Your task to perform on an android device: install app "PlayWell" Image 0: 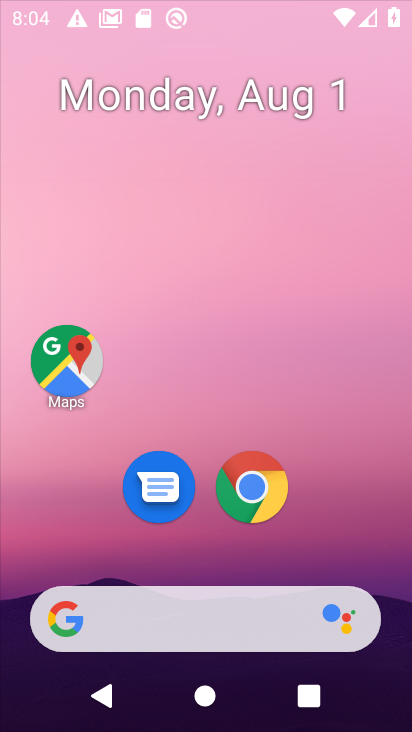
Step 0: press home button
Your task to perform on an android device: install app "PlayWell" Image 1: 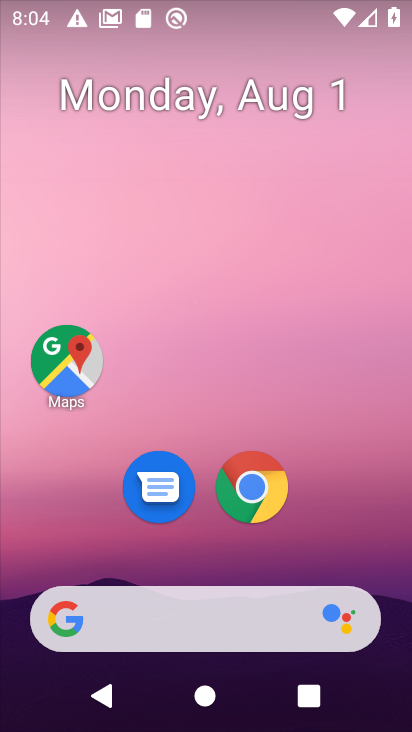
Step 1: drag from (369, 559) to (379, 52)
Your task to perform on an android device: install app "PlayWell" Image 2: 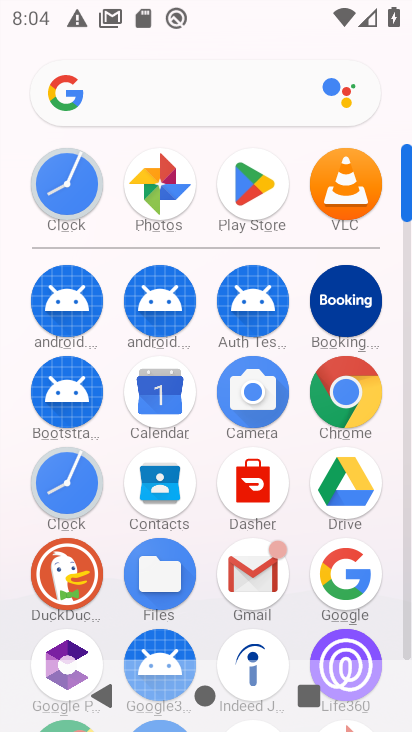
Step 2: click (252, 193)
Your task to perform on an android device: install app "PlayWell" Image 3: 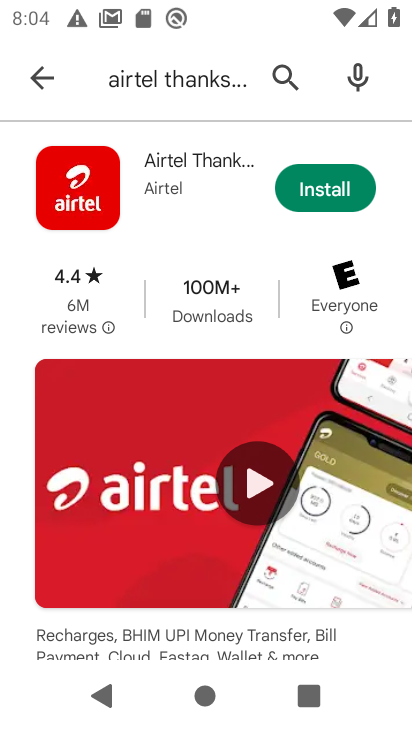
Step 3: click (281, 70)
Your task to perform on an android device: install app "PlayWell" Image 4: 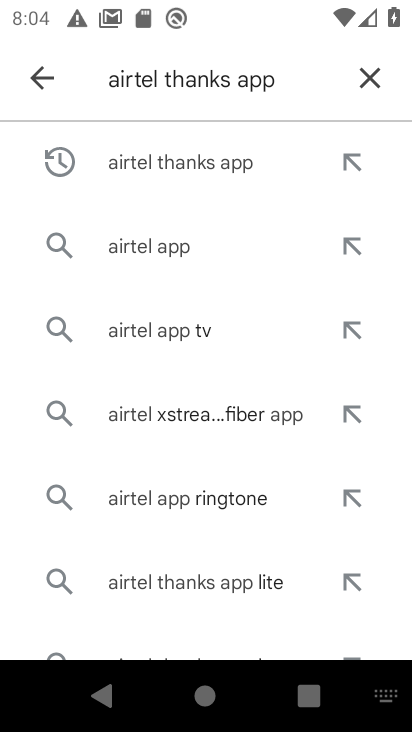
Step 4: click (368, 68)
Your task to perform on an android device: install app "PlayWell" Image 5: 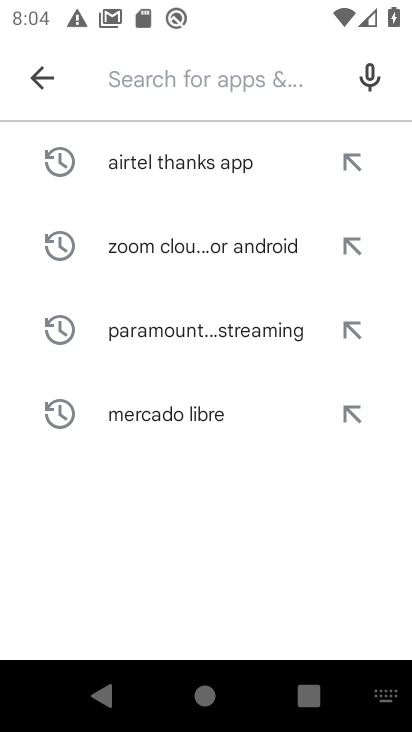
Step 5: click (279, 89)
Your task to perform on an android device: install app "PlayWell" Image 6: 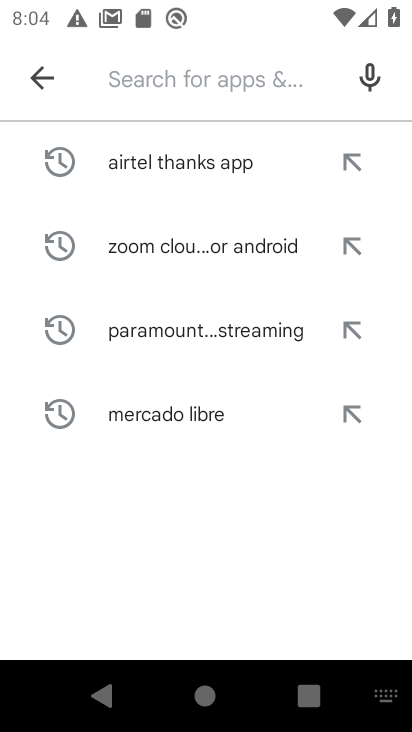
Step 6: type "play well"
Your task to perform on an android device: install app "PlayWell" Image 7: 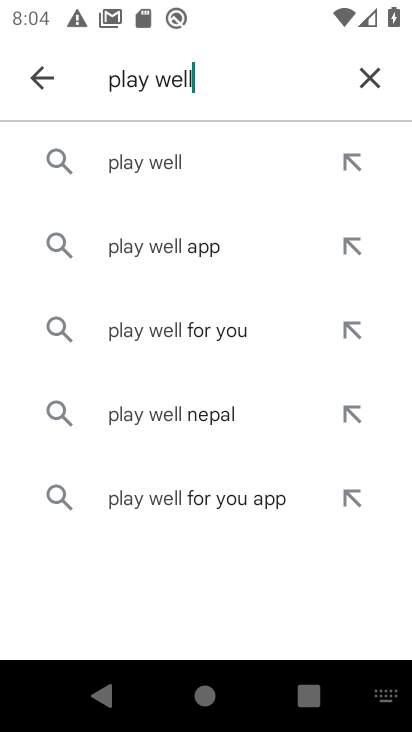
Step 7: click (186, 162)
Your task to perform on an android device: install app "PlayWell" Image 8: 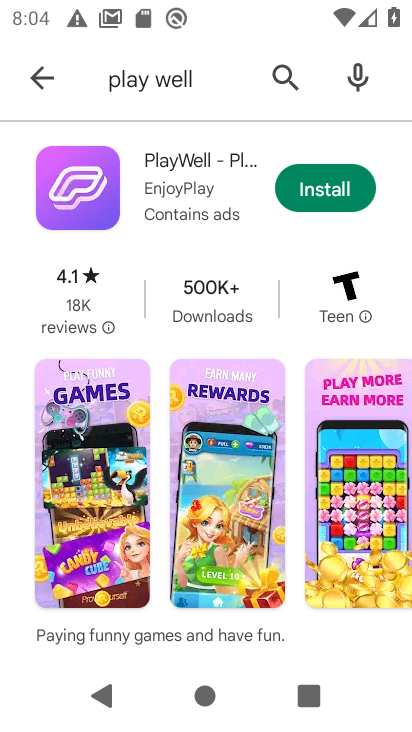
Step 8: click (313, 189)
Your task to perform on an android device: install app "PlayWell" Image 9: 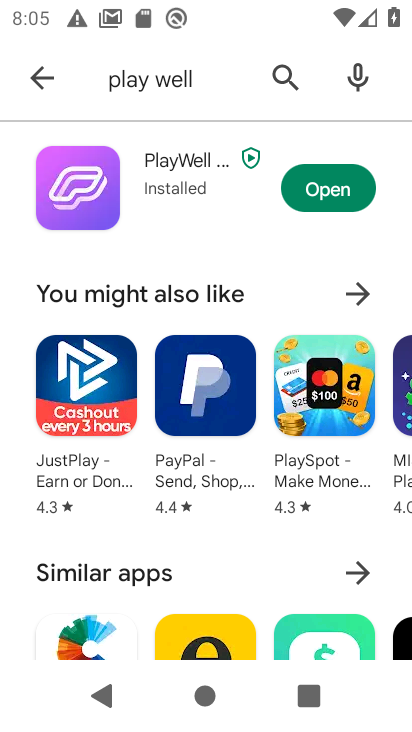
Step 9: task complete